Your task to perform on an android device: empty trash in the gmail app Image 0: 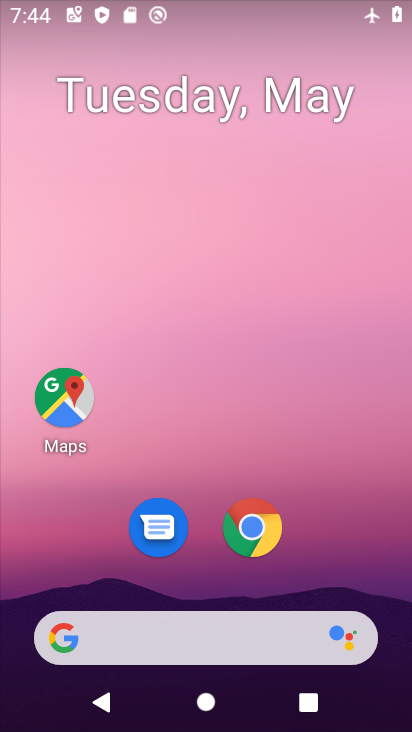
Step 0: drag from (332, 552) to (283, 146)
Your task to perform on an android device: empty trash in the gmail app Image 1: 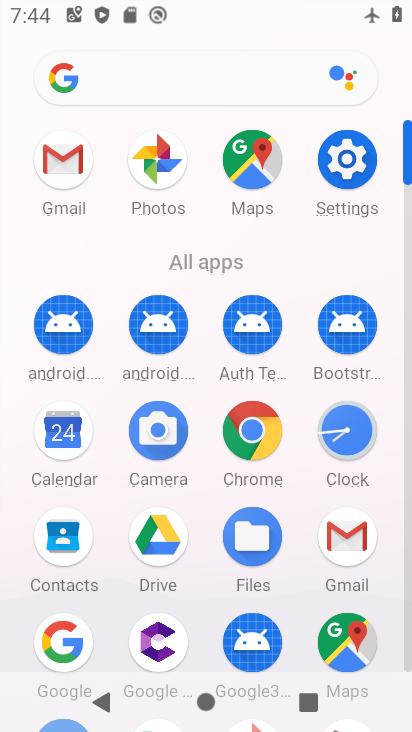
Step 1: click (64, 160)
Your task to perform on an android device: empty trash in the gmail app Image 2: 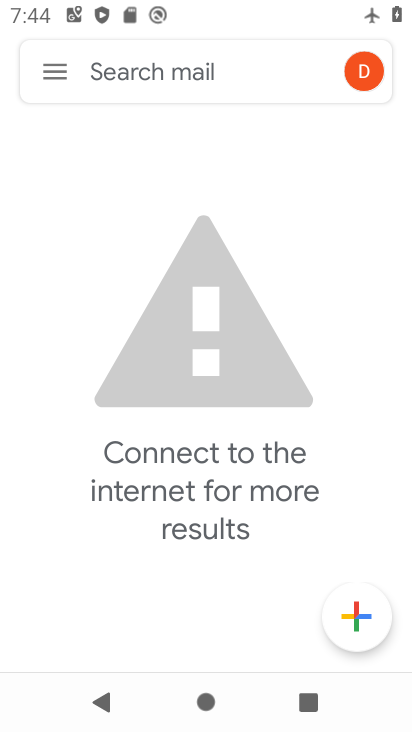
Step 2: click (60, 73)
Your task to perform on an android device: empty trash in the gmail app Image 3: 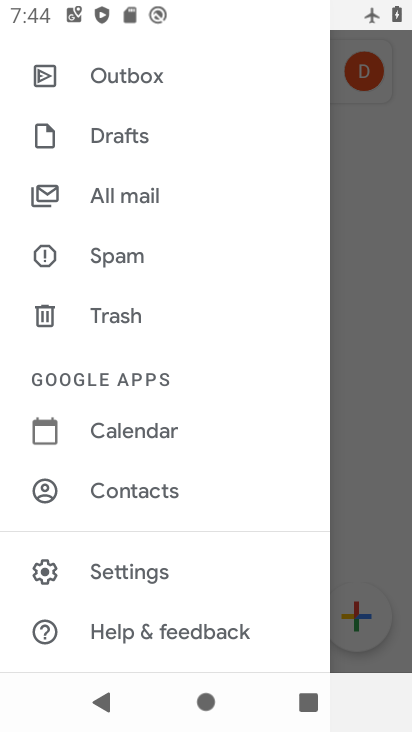
Step 3: click (113, 312)
Your task to perform on an android device: empty trash in the gmail app Image 4: 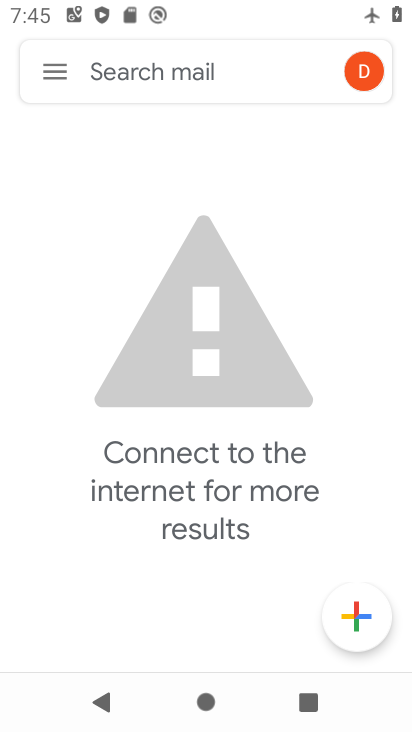
Step 4: task complete